Your task to perform on an android device: turn on the 24-hour format for clock Image 0: 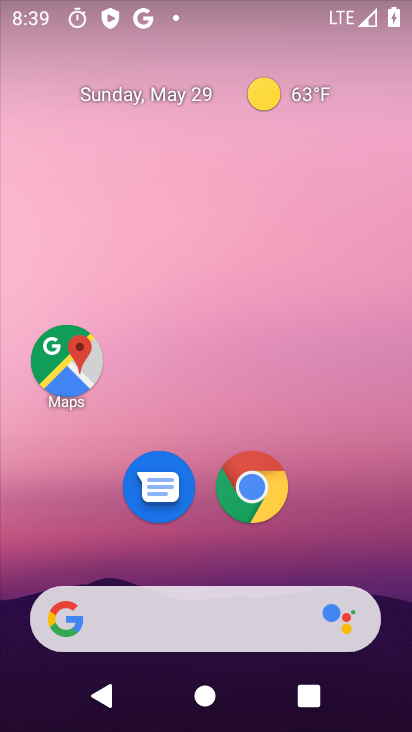
Step 0: drag from (332, 557) to (253, 72)
Your task to perform on an android device: turn on the 24-hour format for clock Image 1: 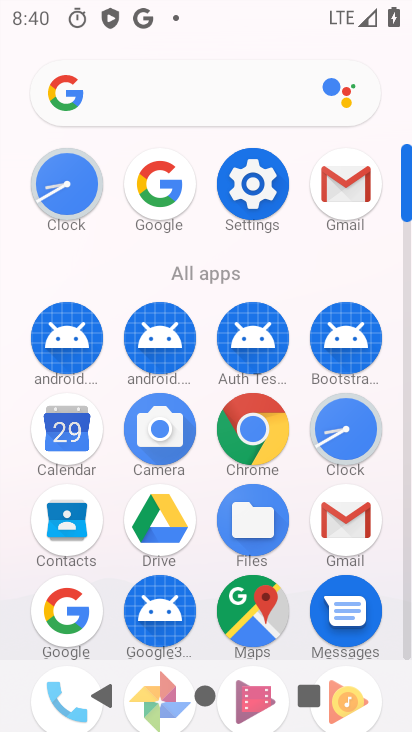
Step 1: click (347, 431)
Your task to perform on an android device: turn on the 24-hour format for clock Image 2: 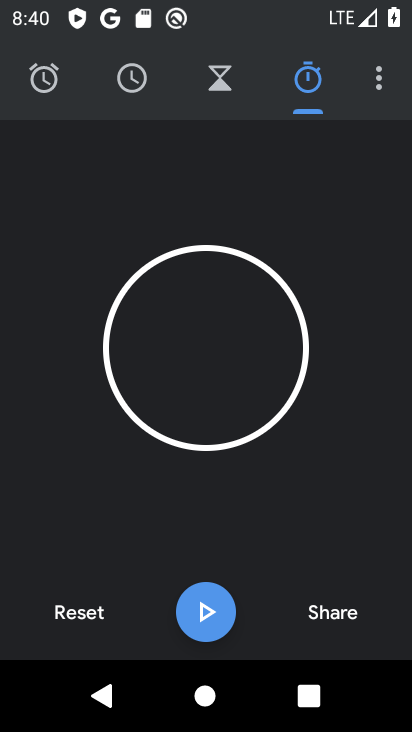
Step 2: click (382, 76)
Your task to perform on an android device: turn on the 24-hour format for clock Image 3: 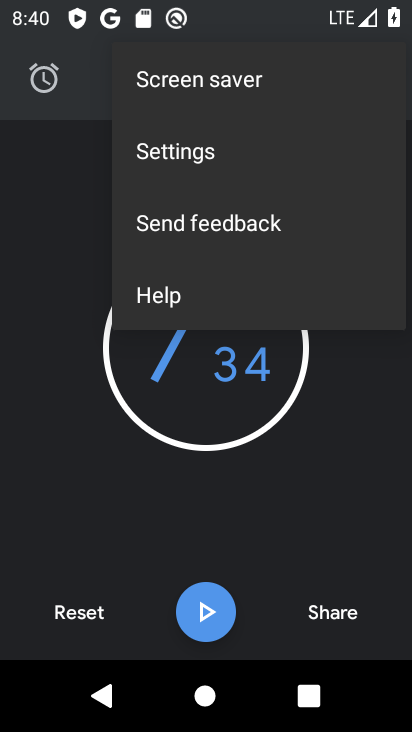
Step 3: click (196, 149)
Your task to perform on an android device: turn on the 24-hour format for clock Image 4: 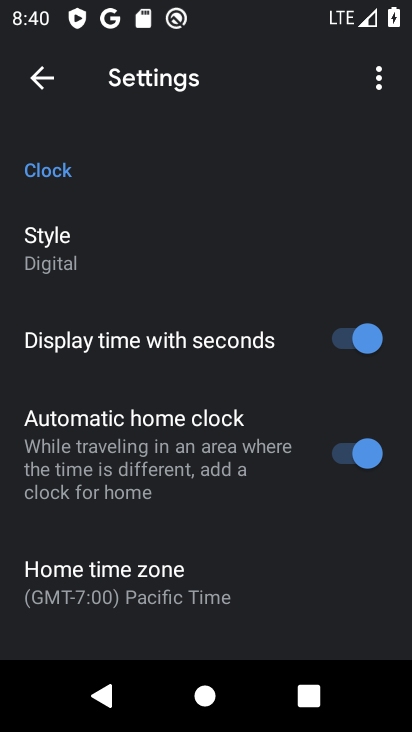
Step 4: drag from (127, 375) to (165, 278)
Your task to perform on an android device: turn on the 24-hour format for clock Image 5: 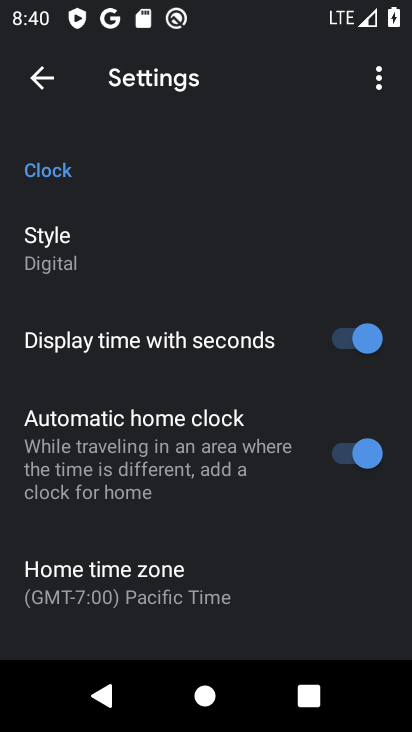
Step 5: drag from (107, 527) to (170, 428)
Your task to perform on an android device: turn on the 24-hour format for clock Image 6: 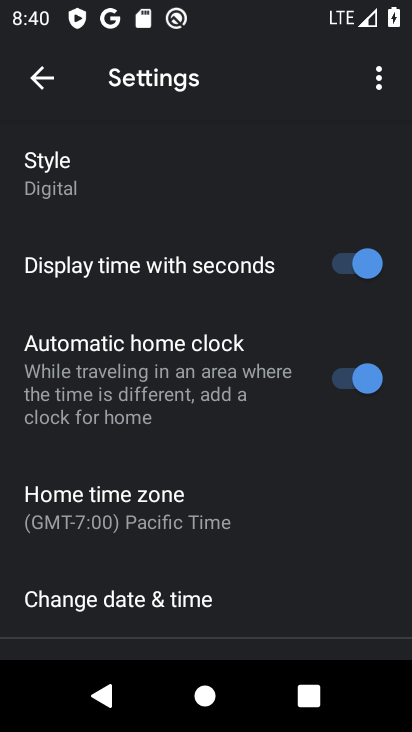
Step 6: drag from (110, 567) to (193, 453)
Your task to perform on an android device: turn on the 24-hour format for clock Image 7: 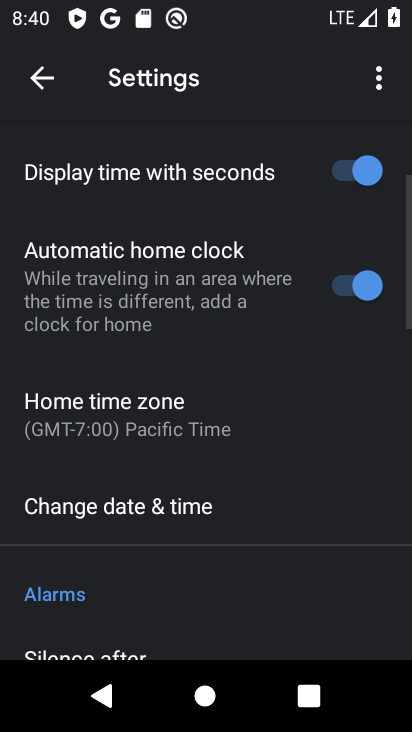
Step 7: drag from (121, 600) to (211, 482)
Your task to perform on an android device: turn on the 24-hour format for clock Image 8: 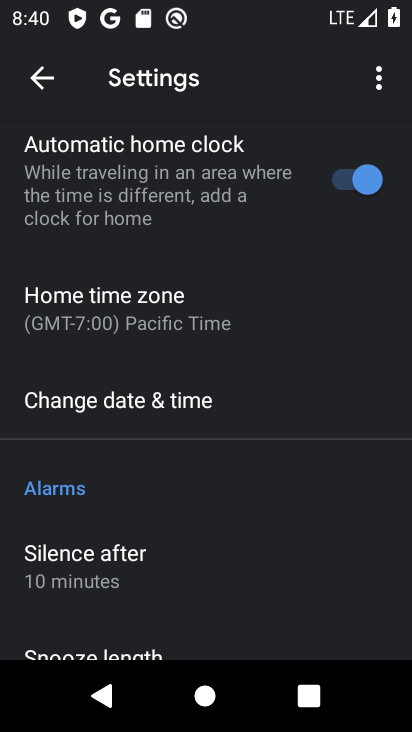
Step 8: drag from (125, 608) to (221, 489)
Your task to perform on an android device: turn on the 24-hour format for clock Image 9: 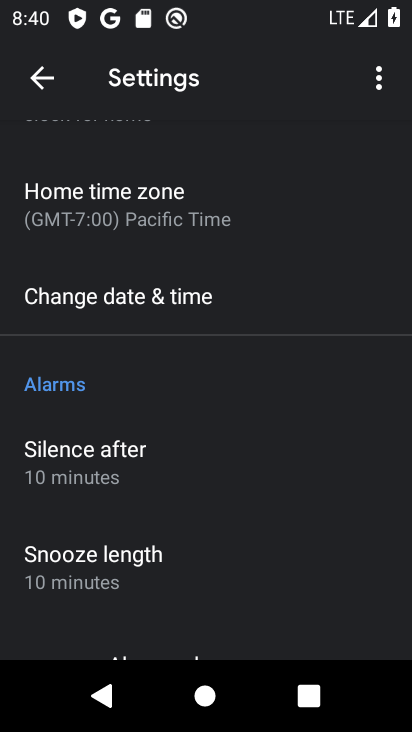
Step 9: click (174, 302)
Your task to perform on an android device: turn on the 24-hour format for clock Image 10: 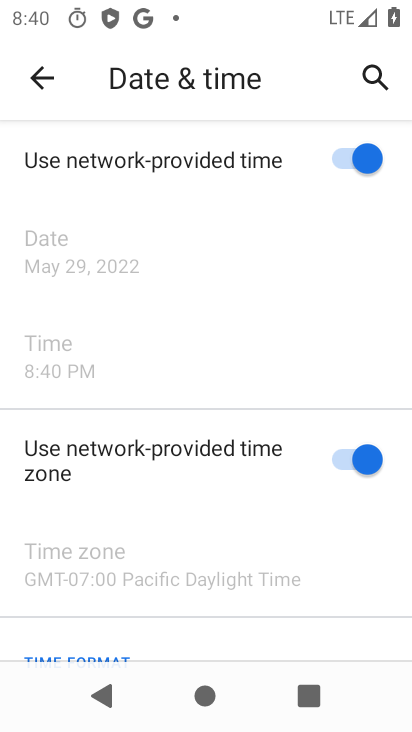
Step 10: drag from (131, 505) to (180, 382)
Your task to perform on an android device: turn on the 24-hour format for clock Image 11: 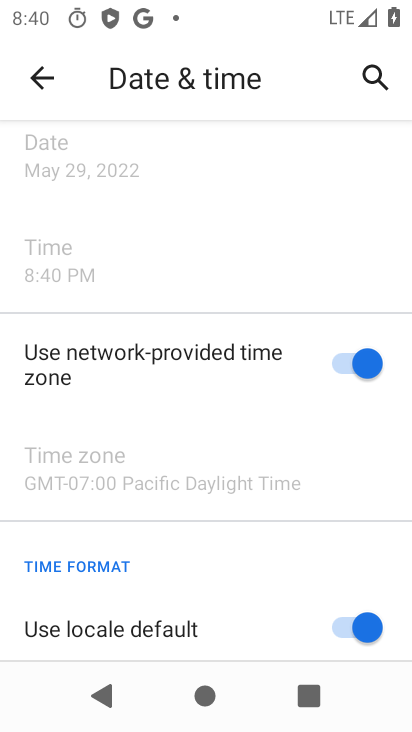
Step 11: drag from (227, 510) to (240, 454)
Your task to perform on an android device: turn on the 24-hour format for clock Image 12: 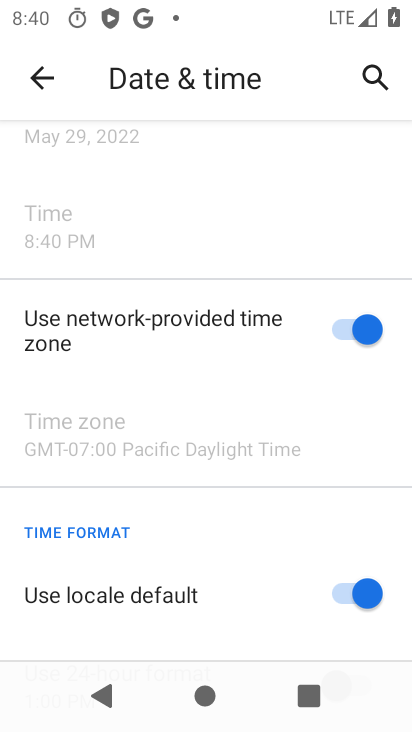
Step 12: drag from (246, 580) to (330, 417)
Your task to perform on an android device: turn on the 24-hour format for clock Image 13: 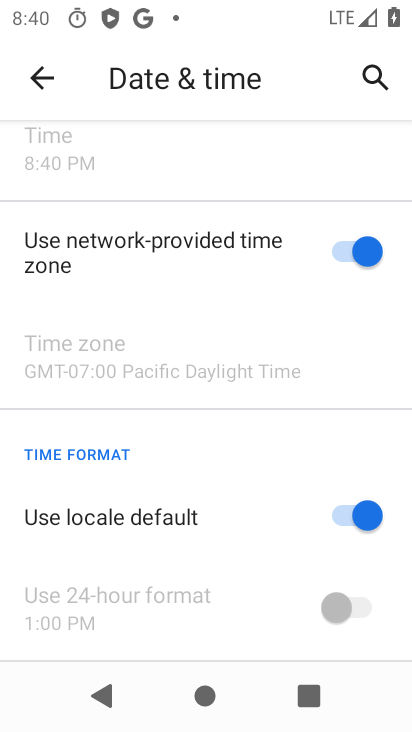
Step 13: click (373, 517)
Your task to perform on an android device: turn on the 24-hour format for clock Image 14: 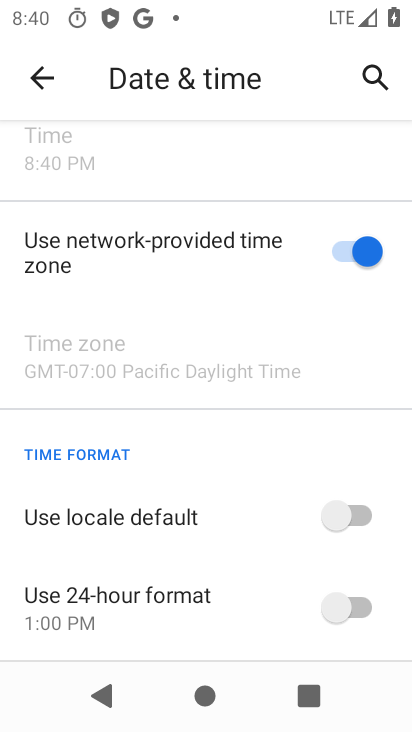
Step 14: click (337, 611)
Your task to perform on an android device: turn on the 24-hour format for clock Image 15: 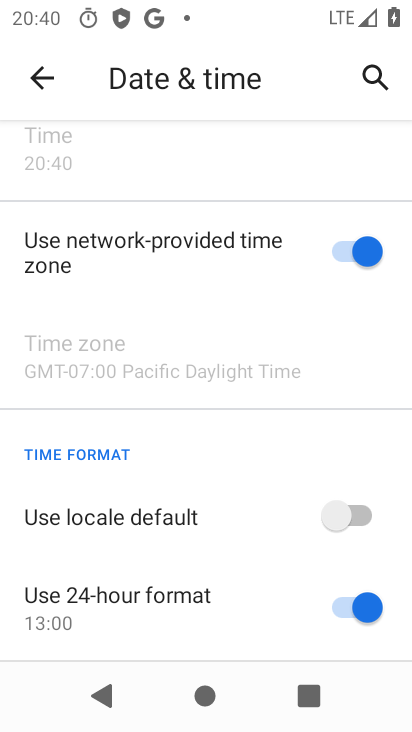
Step 15: task complete